Your task to perform on an android device: check out phone information Image 0: 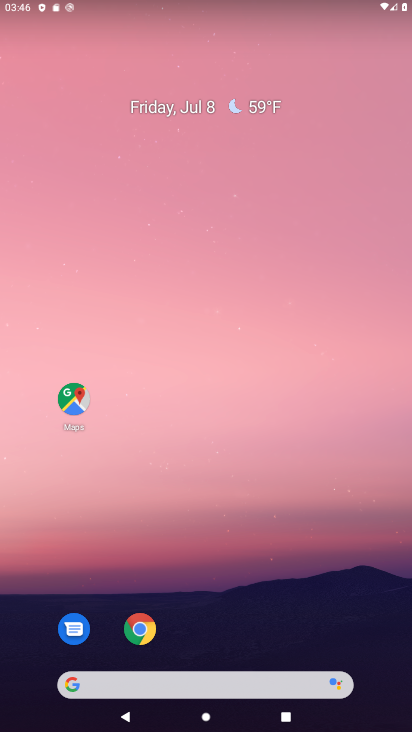
Step 0: drag from (216, 624) to (315, 39)
Your task to perform on an android device: check out phone information Image 1: 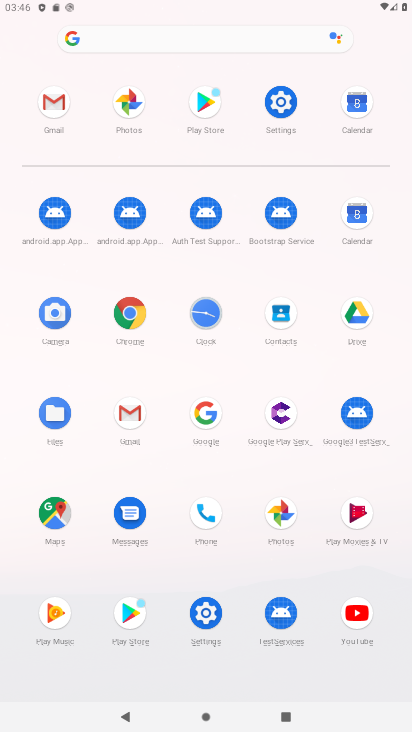
Step 1: click (194, 601)
Your task to perform on an android device: check out phone information Image 2: 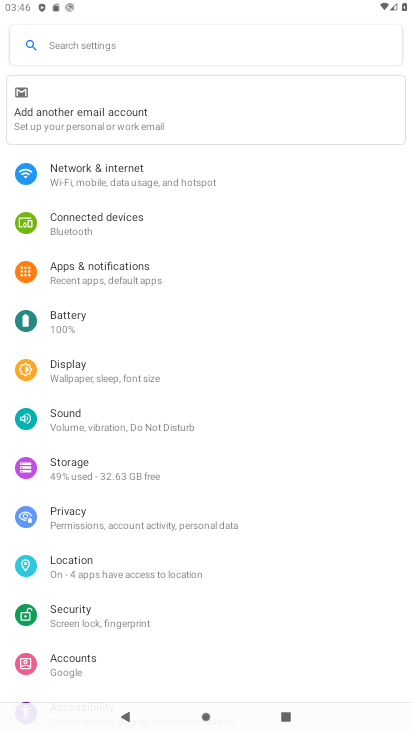
Step 2: drag from (130, 655) to (161, 114)
Your task to perform on an android device: check out phone information Image 3: 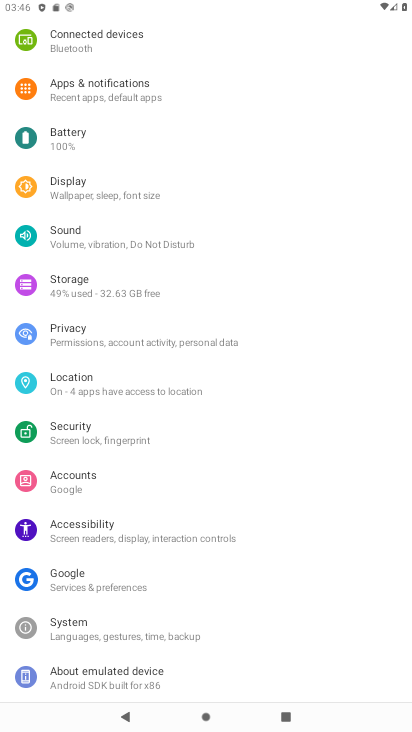
Step 3: click (169, 673)
Your task to perform on an android device: check out phone information Image 4: 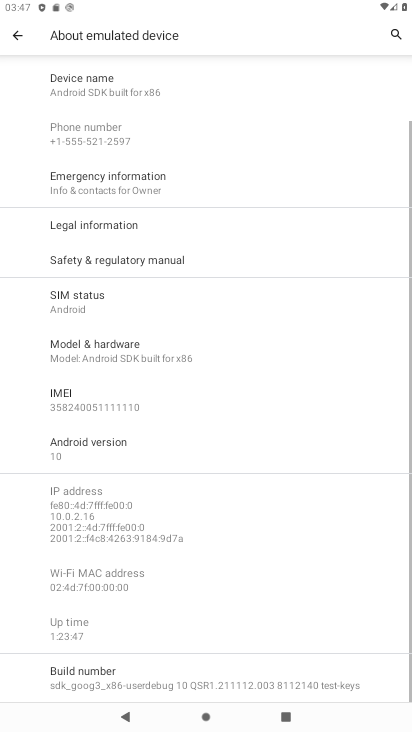
Step 4: task complete